Your task to perform on an android device: empty trash in google photos Image 0: 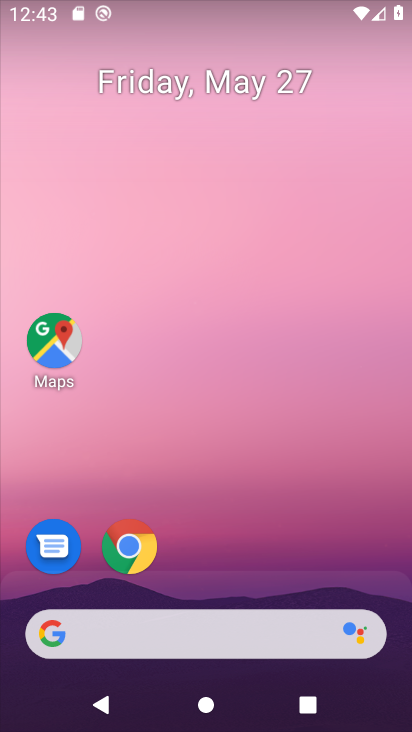
Step 0: drag from (233, 641) to (312, 0)
Your task to perform on an android device: empty trash in google photos Image 1: 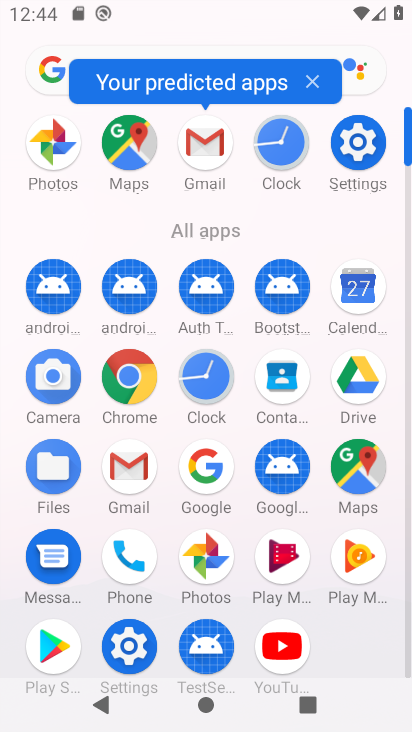
Step 1: click (218, 541)
Your task to perform on an android device: empty trash in google photos Image 2: 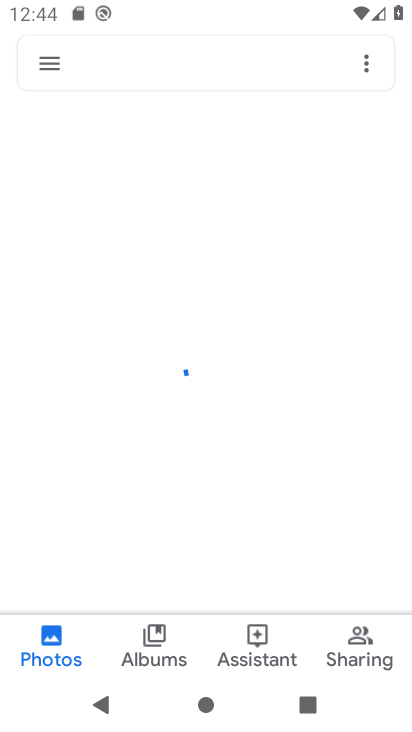
Step 2: click (56, 70)
Your task to perform on an android device: empty trash in google photos Image 3: 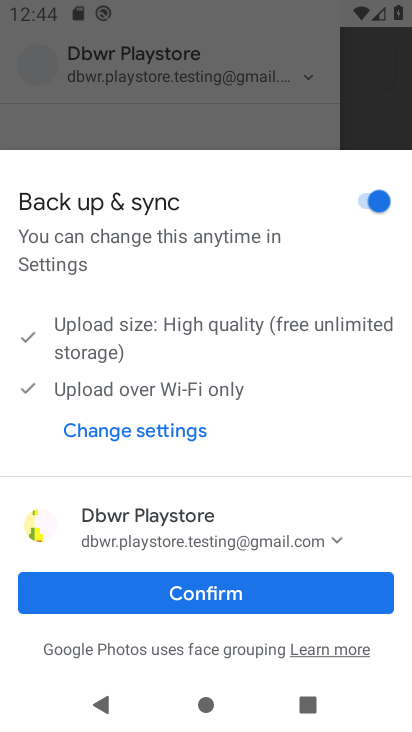
Step 3: click (204, 590)
Your task to perform on an android device: empty trash in google photos Image 4: 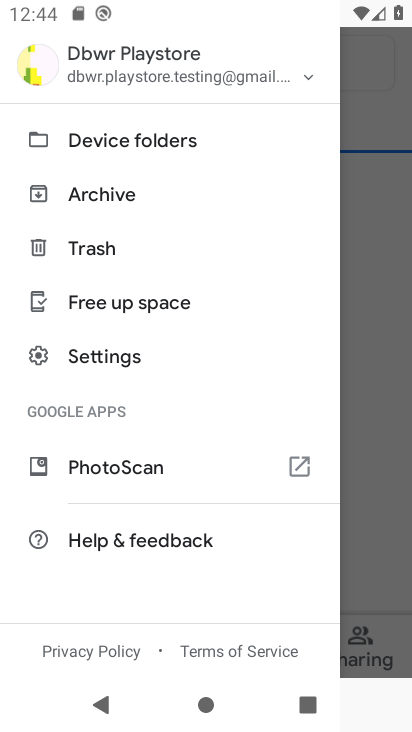
Step 4: click (116, 230)
Your task to perform on an android device: empty trash in google photos Image 5: 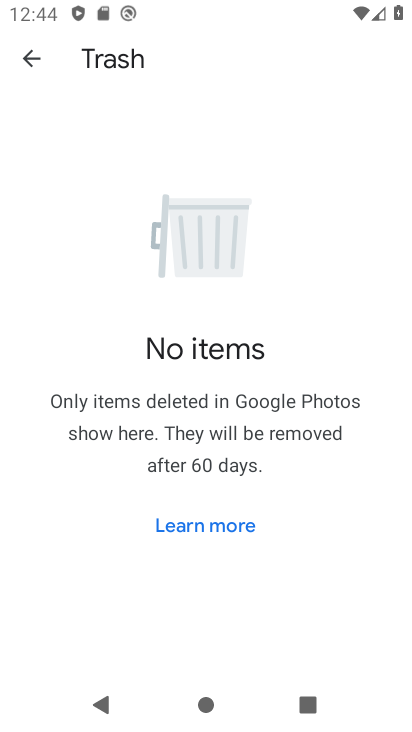
Step 5: task complete